Your task to perform on an android device: Open calendar and show me the fourth week of next month Image 0: 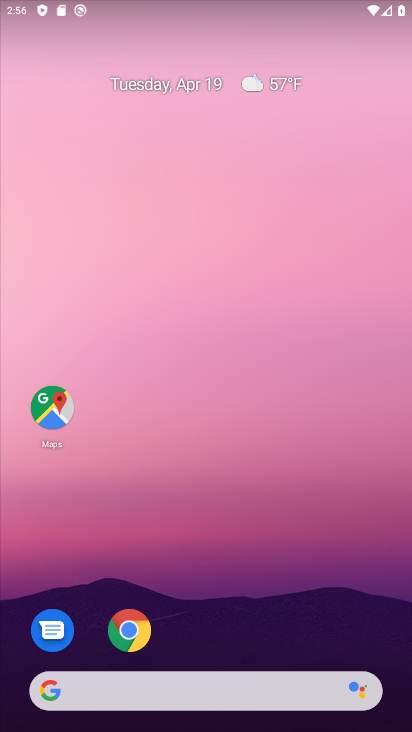
Step 0: drag from (217, 435) to (217, 133)
Your task to perform on an android device: Open calendar and show me the fourth week of next month Image 1: 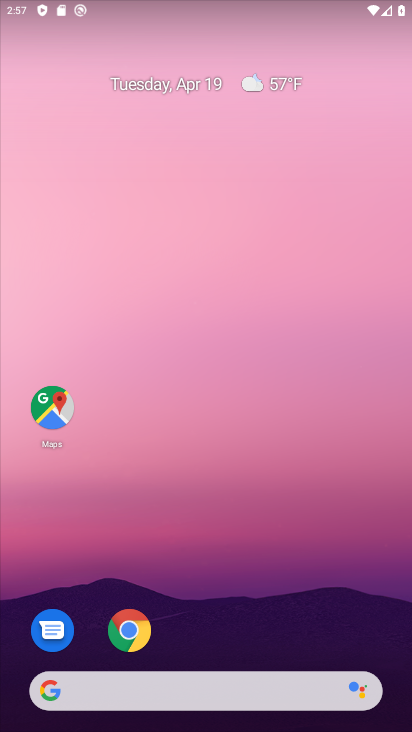
Step 1: drag from (226, 596) to (217, 164)
Your task to perform on an android device: Open calendar and show me the fourth week of next month Image 2: 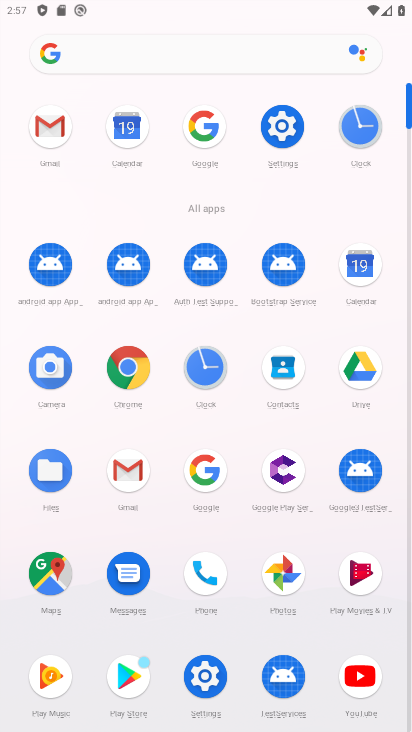
Step 2: click (356, 275)
Your task to perform on an android device: Open calendar and show me the fourth week of next month Image 3: 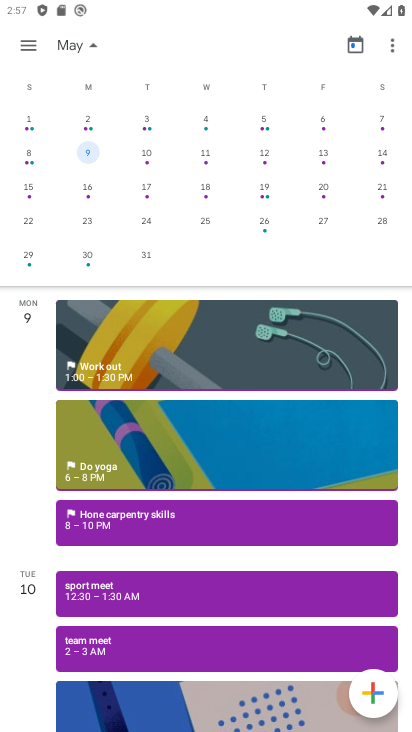
Step 3: click (87, 191)
Your task to perform on an android device: Open calendar and show me the fourth week of next month Image 4: 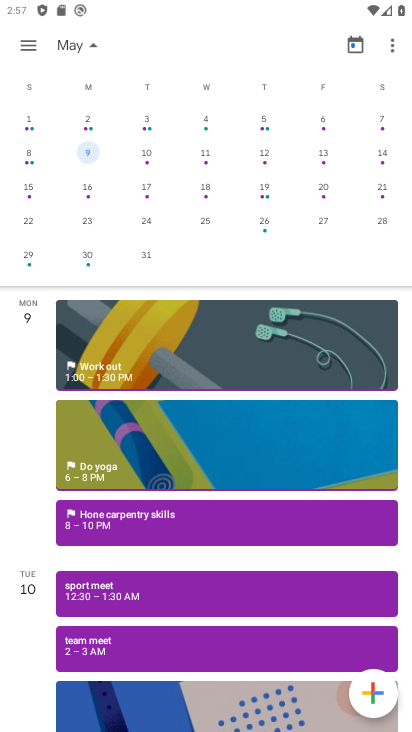
Step 4: click (90, 219)
Your task to perform on an android device: Open calendar and show me the fourth week of next month Image 5: 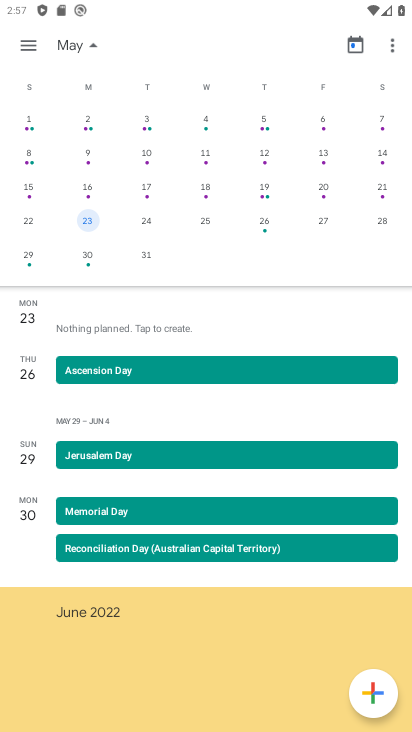
Step 5: click (150, 224)
Your task to perform on an android device: Open calendar and show me the fourth week of next month Image 6: 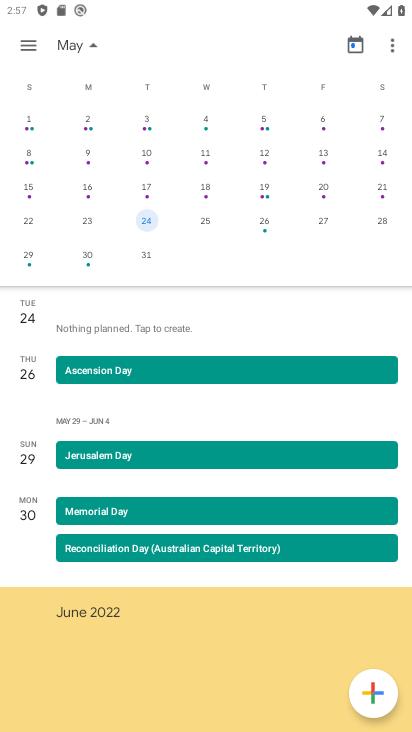
Step 6: task complete